Your task to perform on an android device: turn on improve location accuracy Image 0: 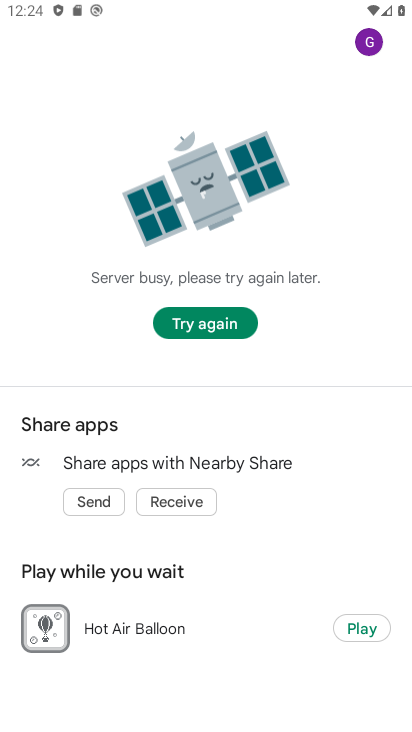
Step 0: press home button
Your task to perform on an android device: turn on improve location accuracy Image 1: 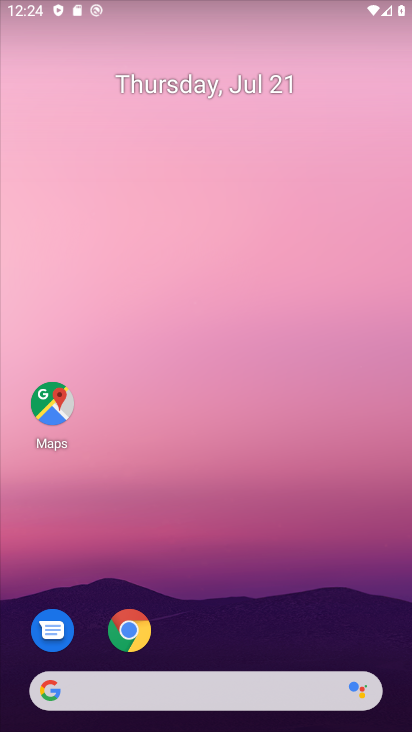
Step 1: drag from (212, 639) to (260, 166)
Your task to perform on an android device: turn on improve location accuracy Image 2: 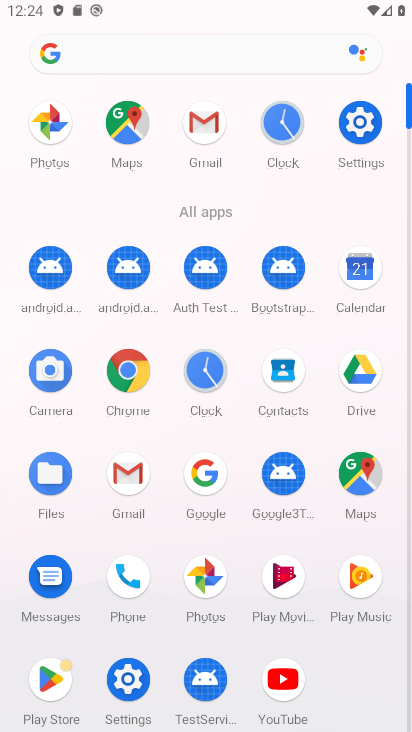
Step 2: click (365, 116)
Your task to perform on an android device: turn on improve location accuracy Image 3: 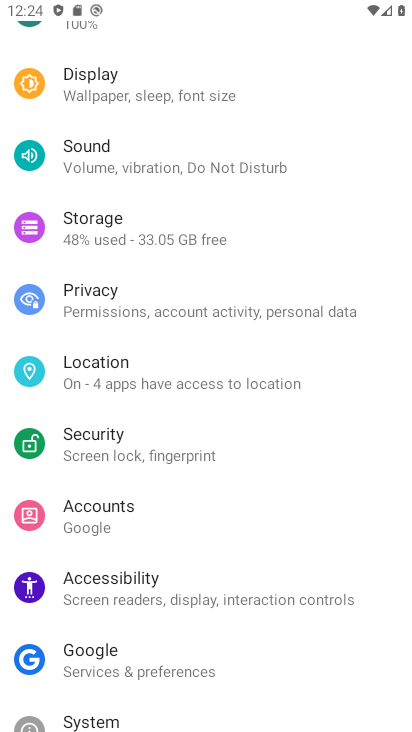
Step 3: click (109, 363)
Your task to perform on an android device: turn on improve location accuracy Image 4: 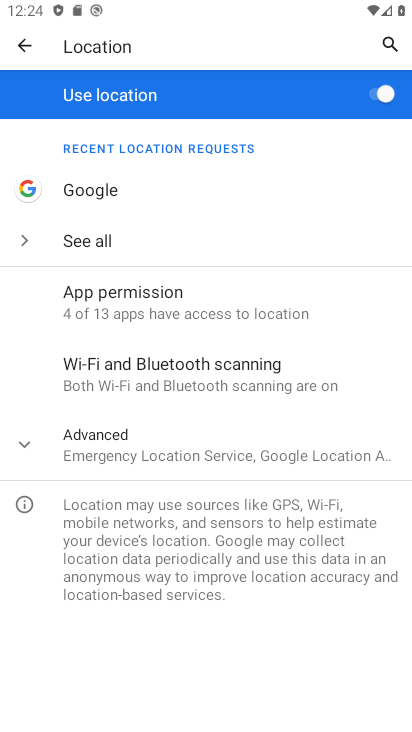
Step 4: click (99, 446)
Your task to perform on an android device: turn on improve location accuracy Image 5: 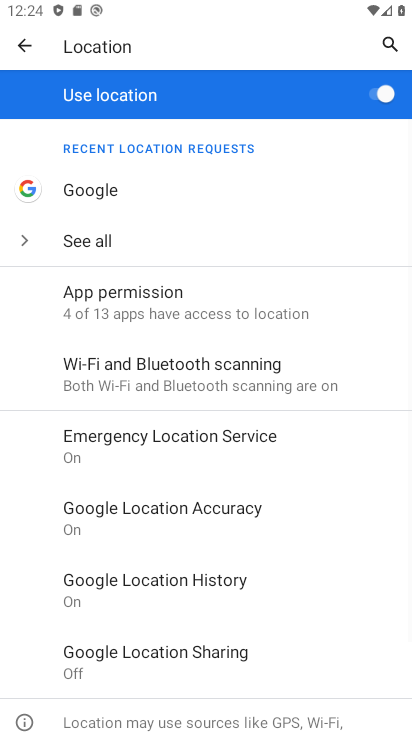
Step 5: click (193, 520)
Your task to perform on an android device: turn on improve location accuracy Image 6: 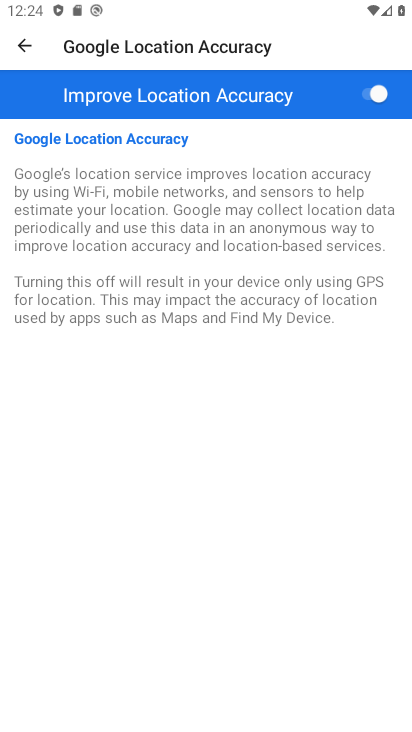
Step 6: task complete